Your task to perform on an android device: Open the calendar app, open the side menu, and click the "Day" option Image 0: 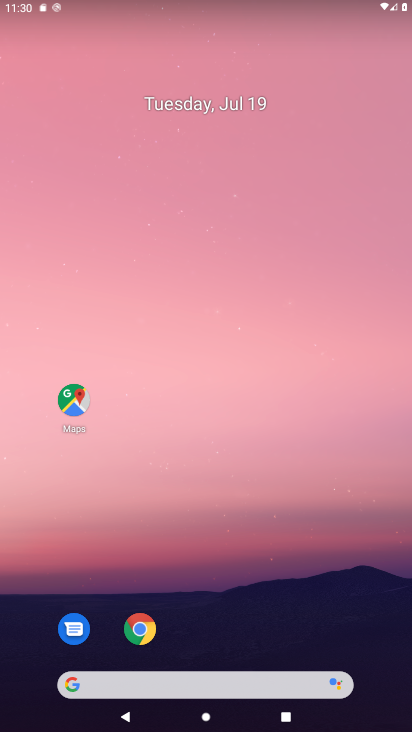
Step 0: drag from (345, 606) to (375, 111)
Your task to perform on an android device: Open the calendar app, open the side menu, and click the "Day" option Image 1: 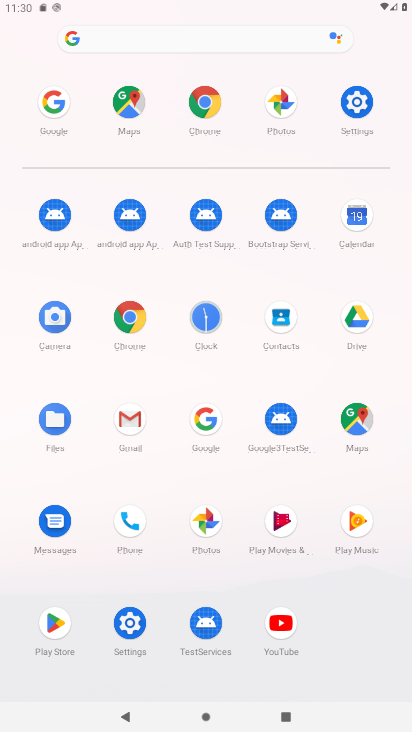
Step 1: click (357, 220)
Your task to perform on an android device: Open the calendar app, open the side menu, and click the "Day" option Image 2: 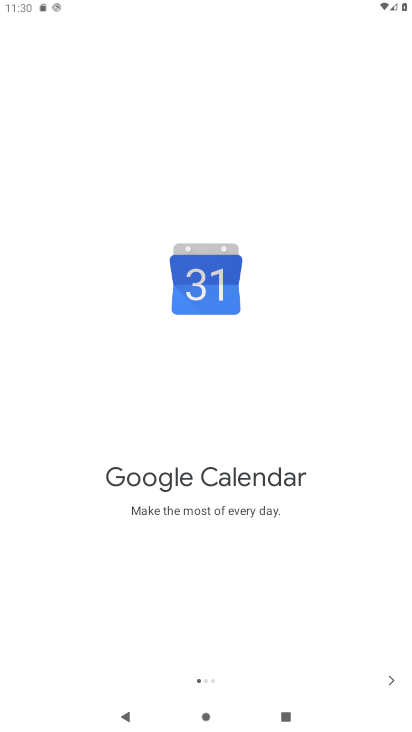
Step 2: click (391, 673)
Your task to perform on an android device: Open the calendar app, open the side menu, and click the "Day" option Image 3: 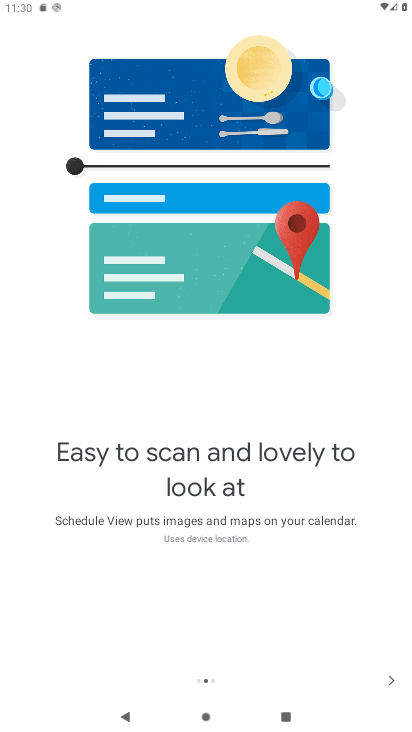
Step 3: click (391, 673)
Your task to perform on an android device: Open the calendar app, open the side menu, and click the "Day" option Image 4: 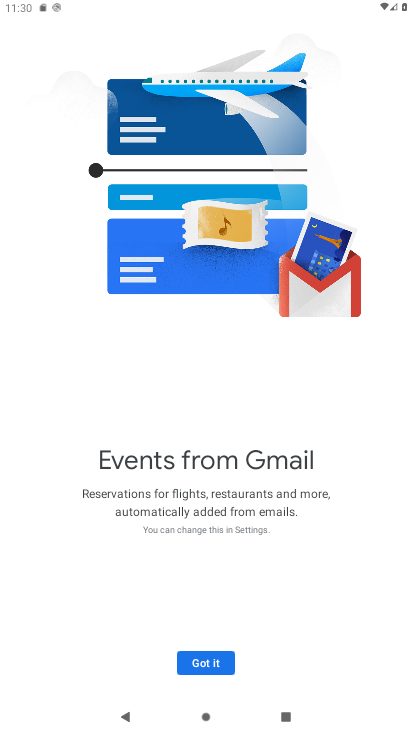
Step 4: click (206, 664)
Your task to perform on an android device: Open the calendar app, open the side menu, and click the "Day" option Image 5: 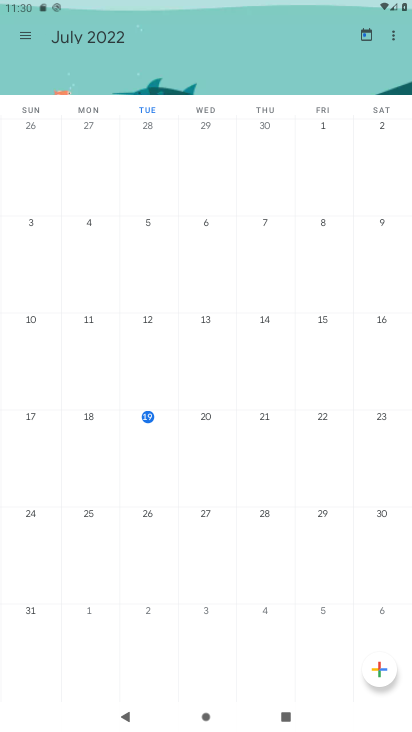
Step 5: click (21, 29)
Your task to perform on an android device: Open the calendar app, open the side menu, and click the "Day" option Image 6: 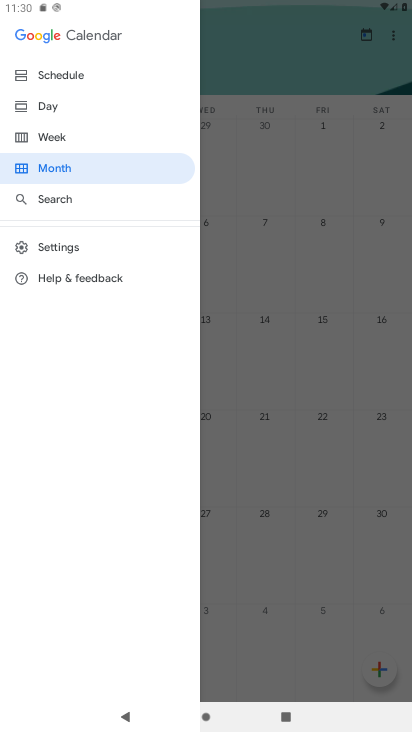
Step 6: click (58, 109)
Your task to perform on an android device: Open the calendar app, open the side menu, and click the "Day" option Image 7: 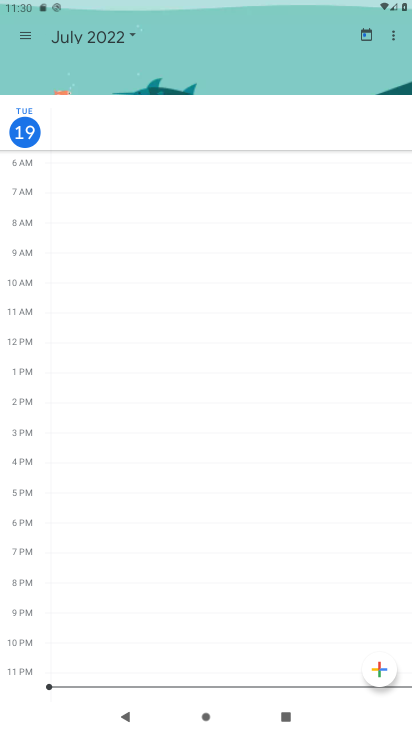
Step 7: task complete